Your task to perform on an android device: What is the recent news? Image 0: 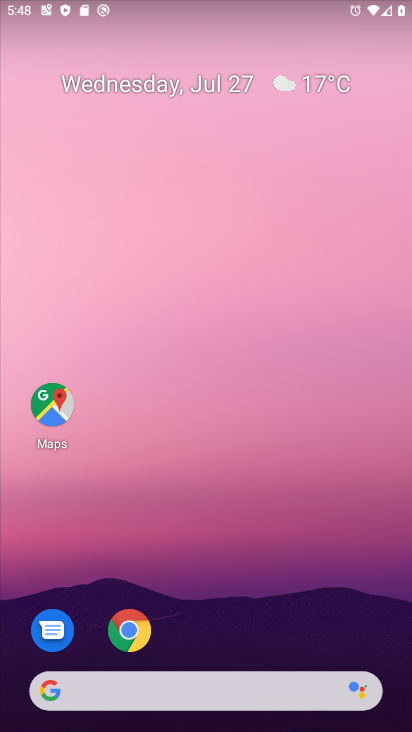
Step 0: press home button
Your task to perform on an android device: What is the recent news? Image 1: 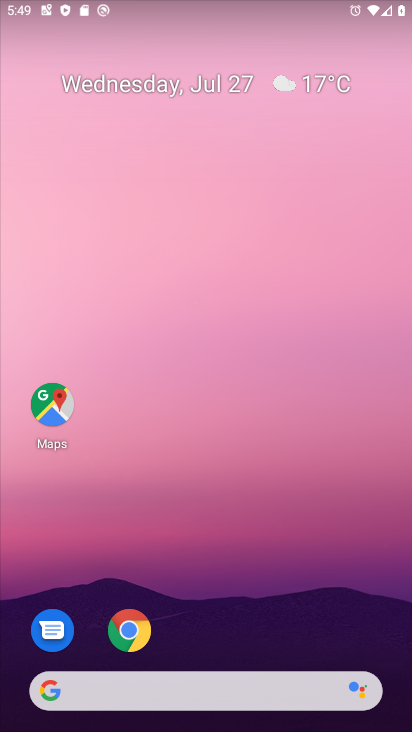
Step 1: task complete